Your task to perform on an android device: Go to eBay Image 0: 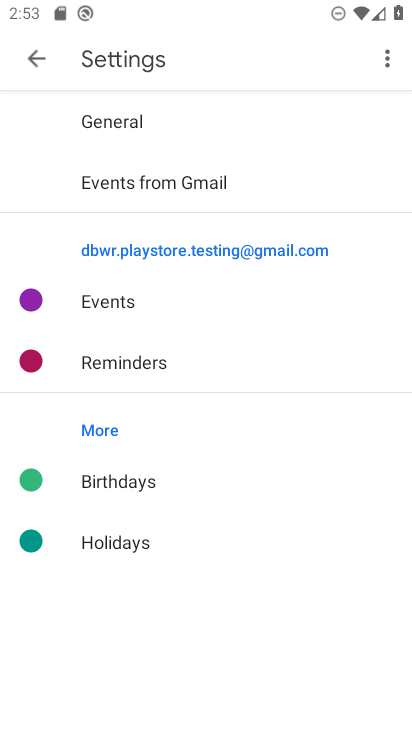
Step 0: press home button
Your task to perform on an android device: Go to eBay Image 1: 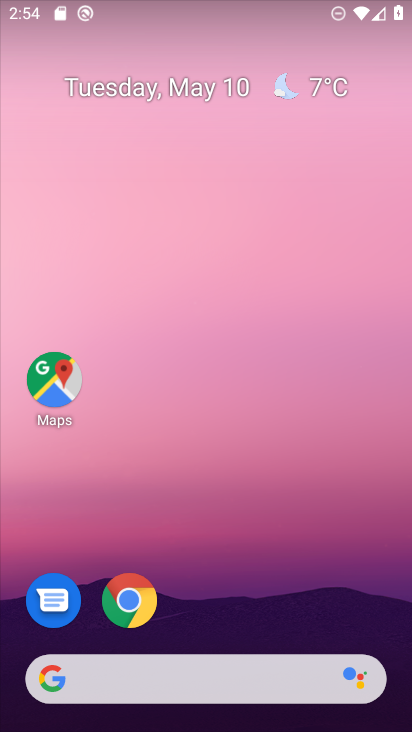
Step 1: click (139, 606)
Your task to perform on an android device: Go to eBay Image 2: 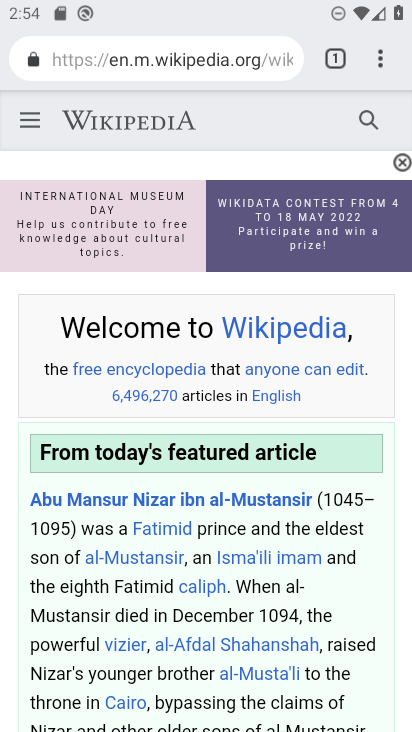
Step 2: click (204, 63)
Your task to perform on an android device: Go to eBay Image 3: 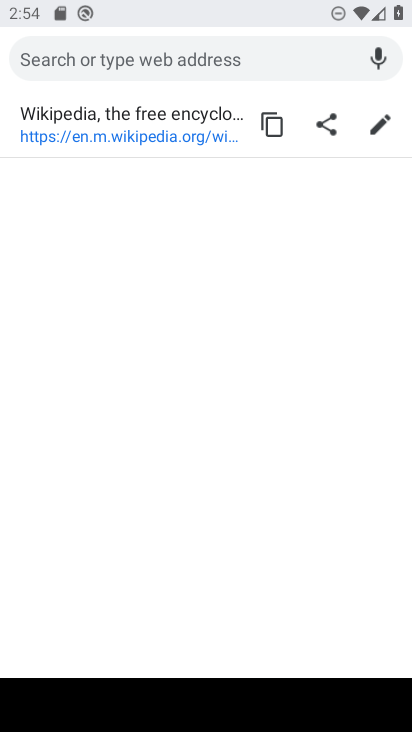
Step 3: type "ebay"
Your task to perform on an android device: Go to eBay Image 4: 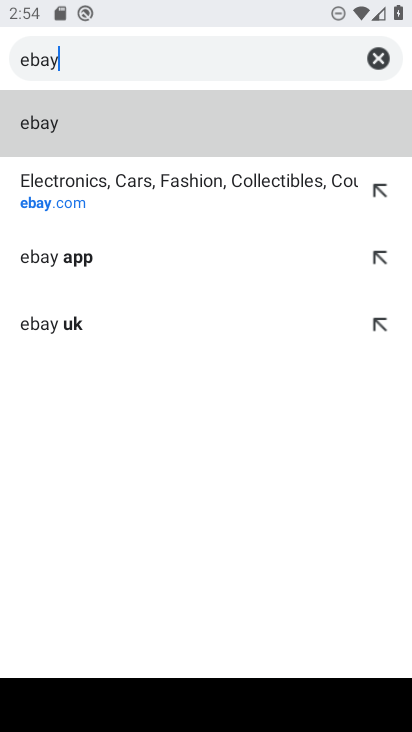
Step 4: click (214, 190)
Your task to perform on an android device: Go to eBay Image 5: 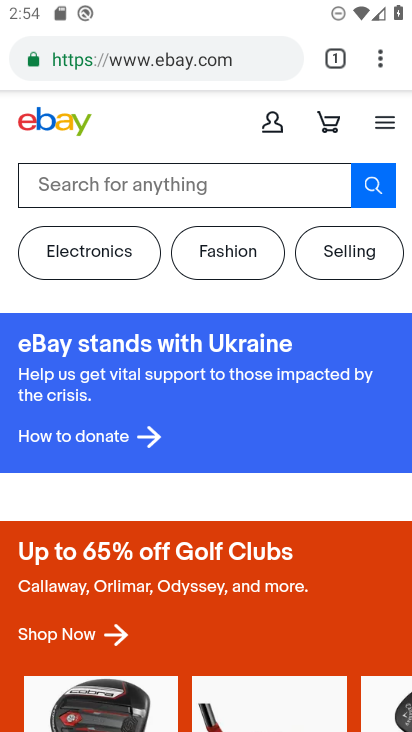
Step 5: task complete